Your task to perform on an android device: move an email to a new category in the gmail app Image 0: 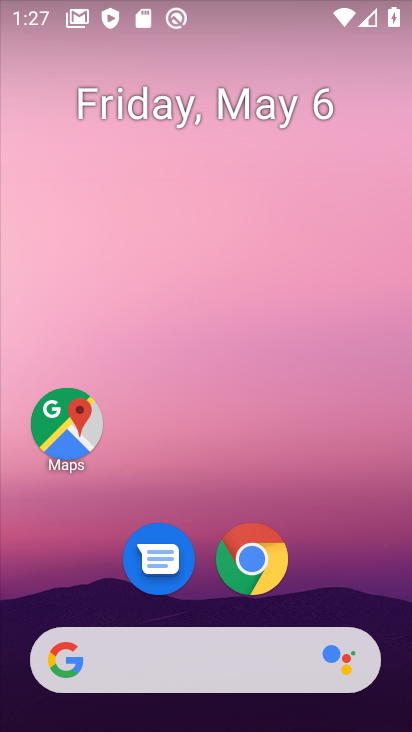
Step 0: drag from (296, 560) to (316, 10)
Your task to perform on an android device: move an email to a new category in the gmail app Image 1: 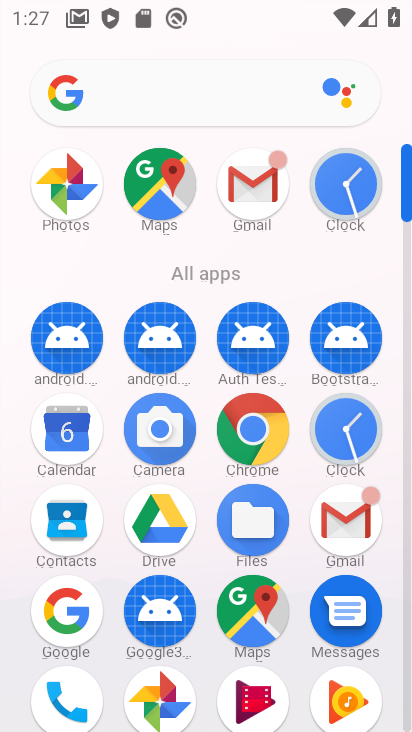
Step 1: click (366, 529)
Your task to perform on an android device: move an email to a new category in the gmail app Image 2: 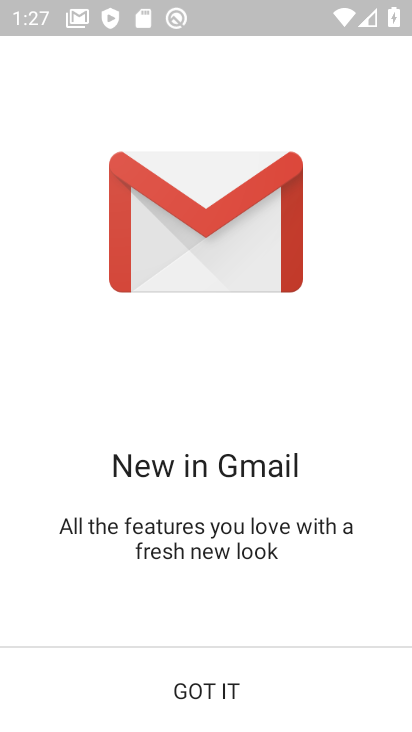
Step 2: click (290, 681)
Your task to perform on an android device: move an email to a new category in the gmail app Image 3: 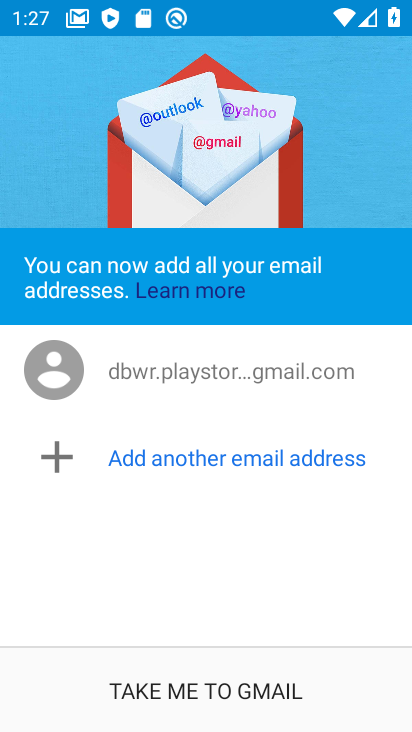
Step 3: click (290, 681)
Your task to perform on an android device: move an email to a new category in the gmail app Image 4: 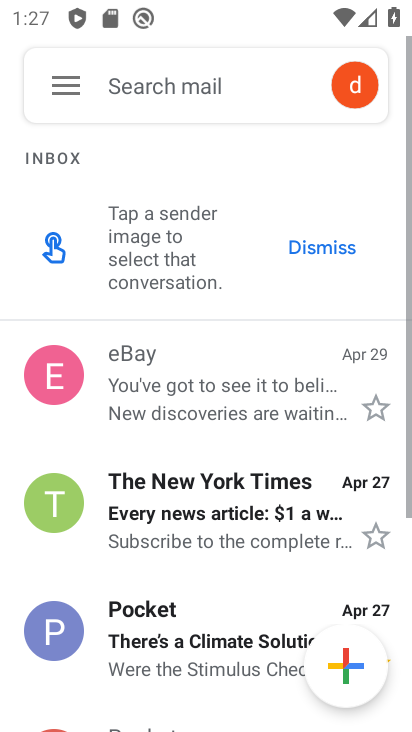
Step 4: drag from (228, 639) to (272, 163)
Your task to perform on an android device: move an email to a new category in the gmail app Image 5: 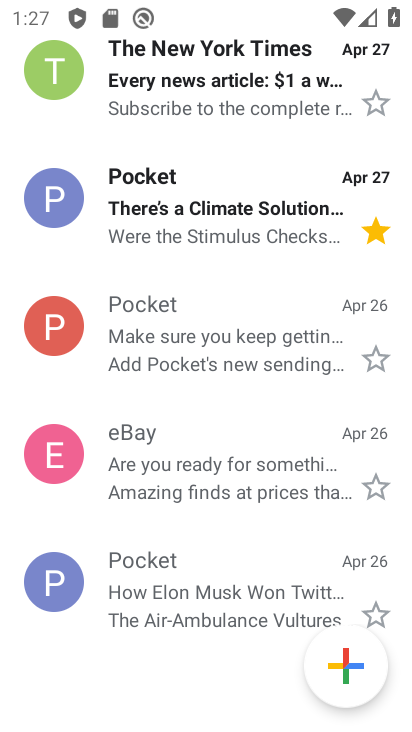
Step 5: click (219, 349)
Your task to perform on an android device: move an email to a new category in the gmail app Image 6: 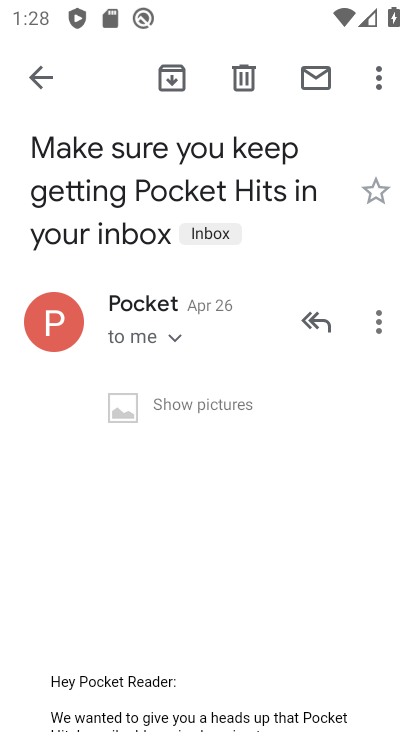
Step 6: click (377, 73)
Your task to perform on an android device: move an email to a new category in the gmail app Image 7: 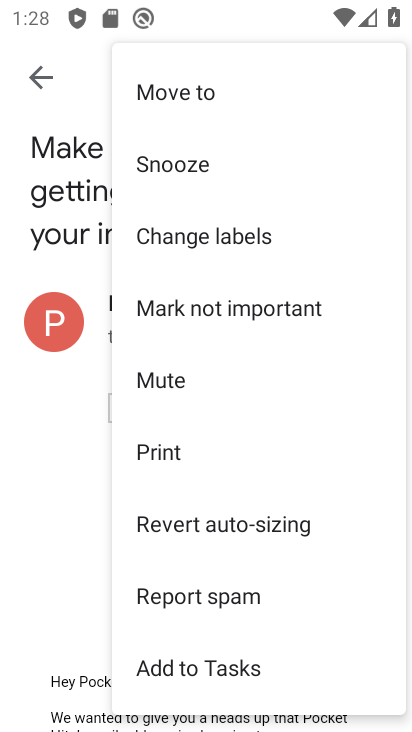
Step 7: click (221, 235)
Your task to perform on an android device: move an email to a new category in the gmail app Image 8: 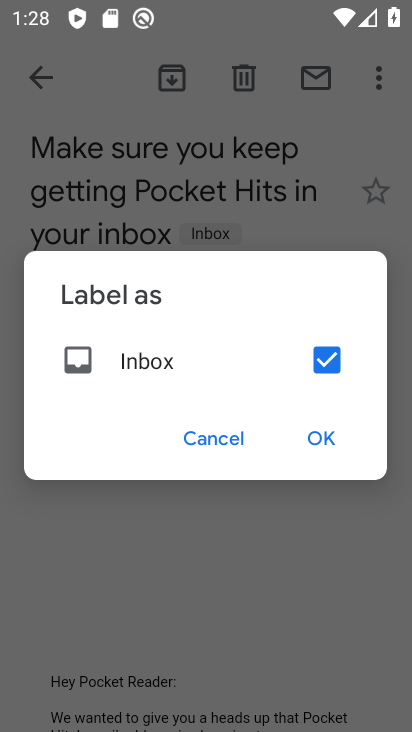
Step 8: click (316, 437)
Your task to perform on an android device: move an email to a new category in the gmail app Image 9: 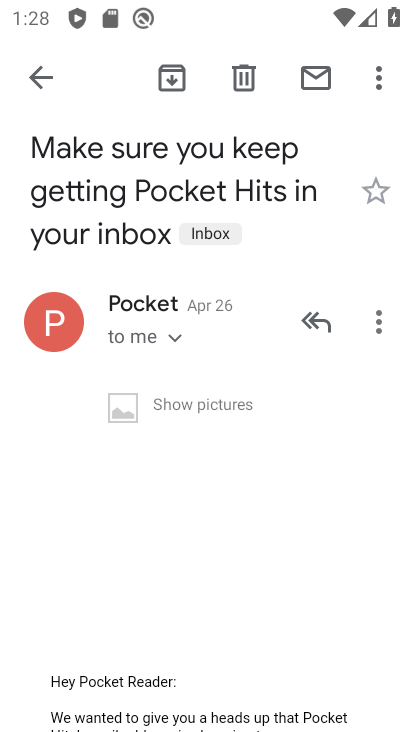
Step 9: task complete